Your task to perform on an android device: toggle data saver in the chrome app Image 0: 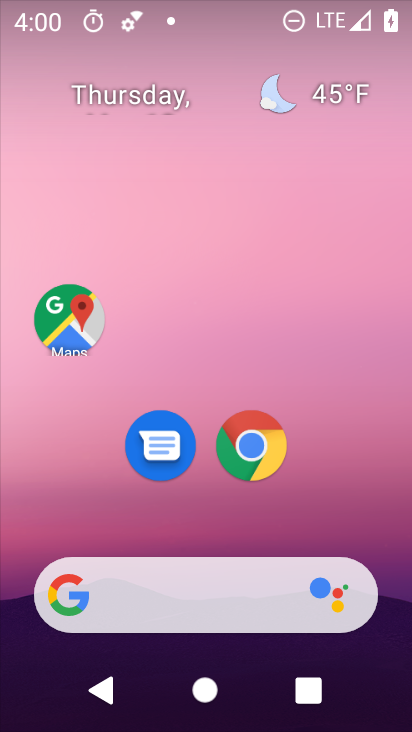
Step 0: click (254, 444)
Your task to perform on an android device: toggle data saver in the chrome app Image 1: 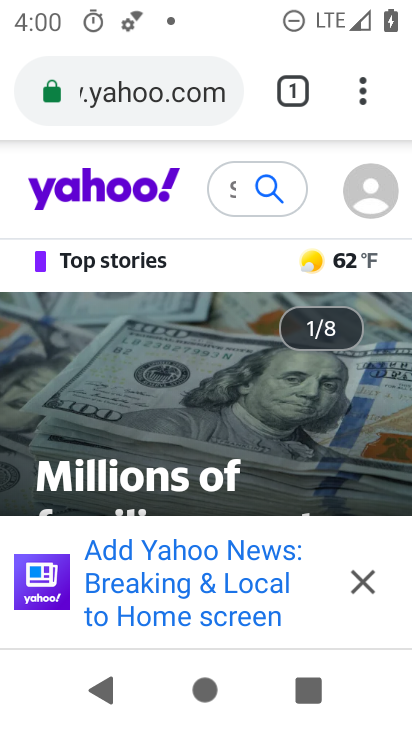
Step 1: click (361, 90)
Your task to perform on an android device: toggle data saver in the chrome app Image 2: 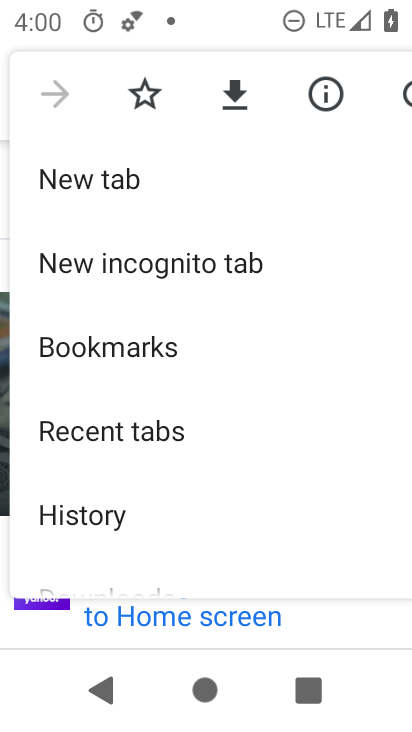
Step 2: drag from (215, 489) to (238, 346)
Your task to perform on an android device: toggle data saver in the chrome app Image 3: 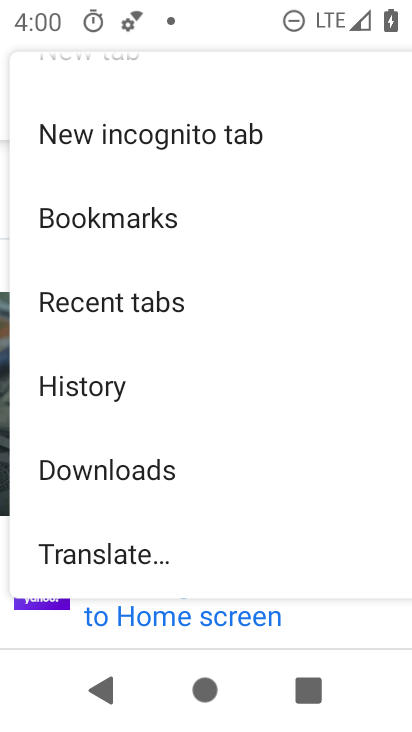
Step 3: drag from (192, 496) to (206, 373)
Your task to perform on an android device: toggle data saver in the chrome app Image 4: 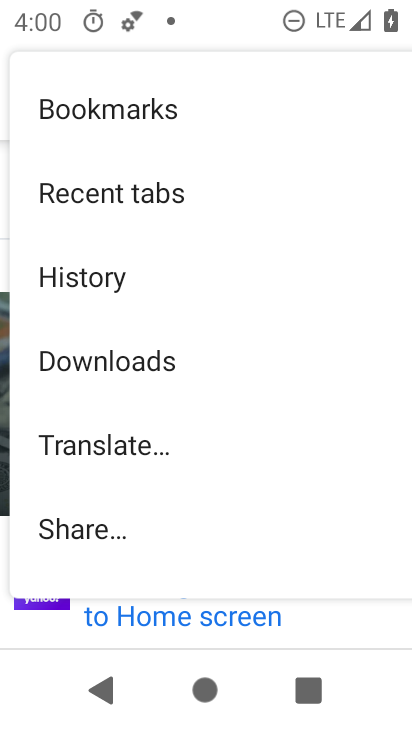
Step 4: drag from (218, 541) to (279, 328)
Your task to perform on an android device: toggle data saver in the chrome app Image 5: 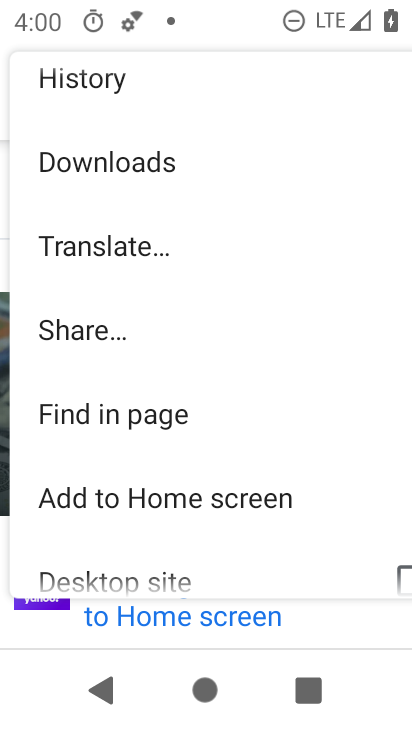
Step 5: drag from (232, 475) to (261, 323)
Your task to perform on an android device: toggle data saver in the chrome app Image 6: 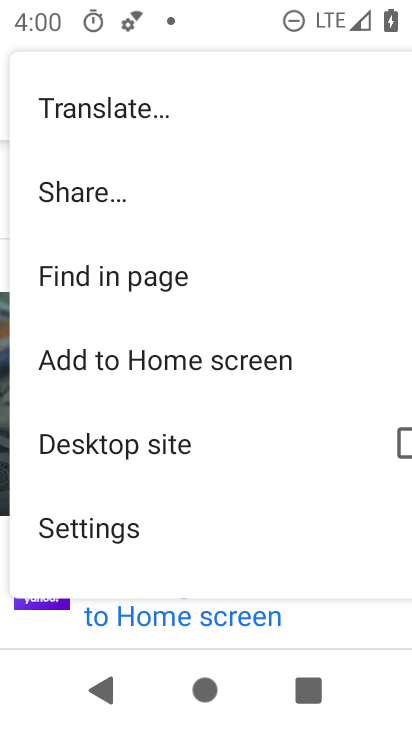
Step 6: click (116, 534)
Your task to perform on an android device: toggle data saver in the chrome app Image 7: 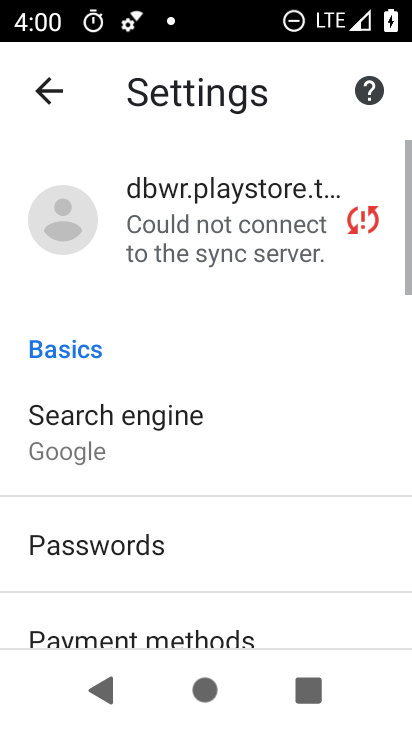
Step 7: drag from (187, 473) to (260, 267)
Your task to perform on an android device: toggle data saver in the chrome app Image 8: 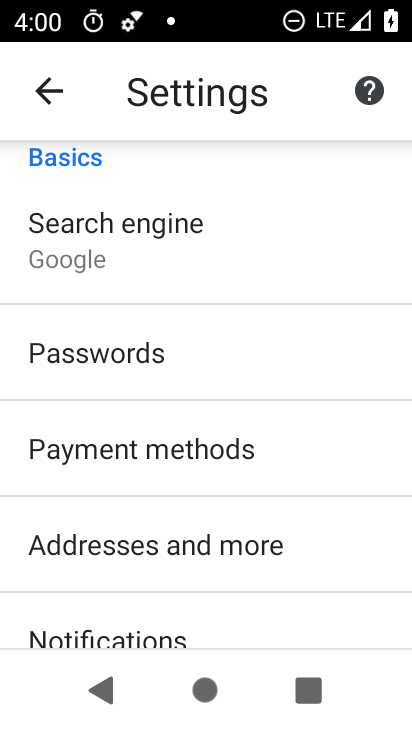
Step 8: drag from (140, 558) to (206, 415)
Your task to perform on an android device: toggle data saver in the chrome app Image 9: 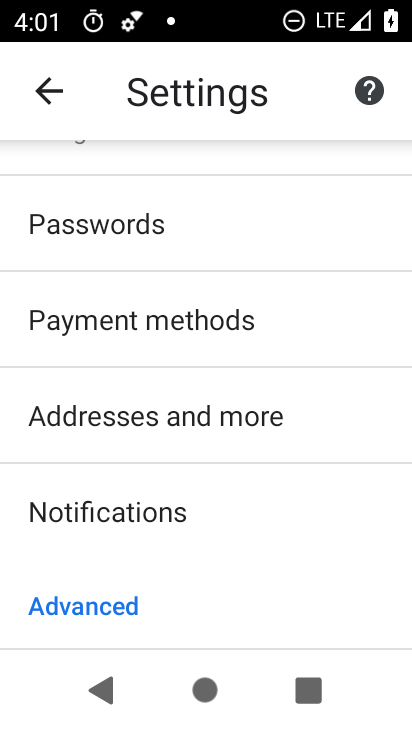
Step 9: drag from (108, 570) to (188, 432)
Your task to perform on an android device: toggle data saver in the chrome app Image 10: 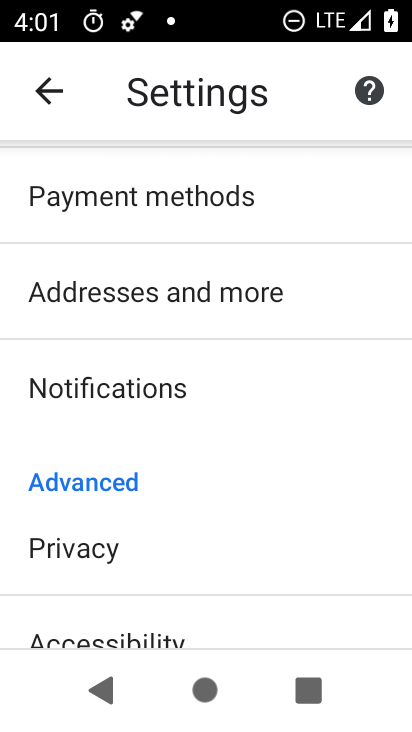
Step 10: drag from (172, 526) to (258, 341)
Your task to perform on an android device: toggle data saver in the chrome app Image 11: 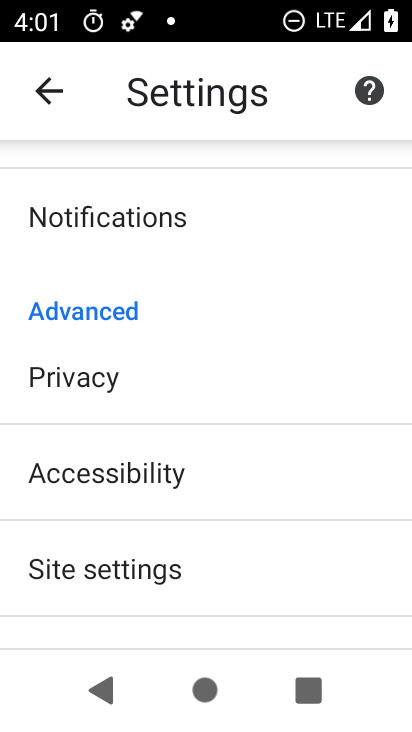
Step 11: drag from (191, 515) to (243, 413)
Your task to perform on an android device: toggle data saver in the chrome app Image 12: 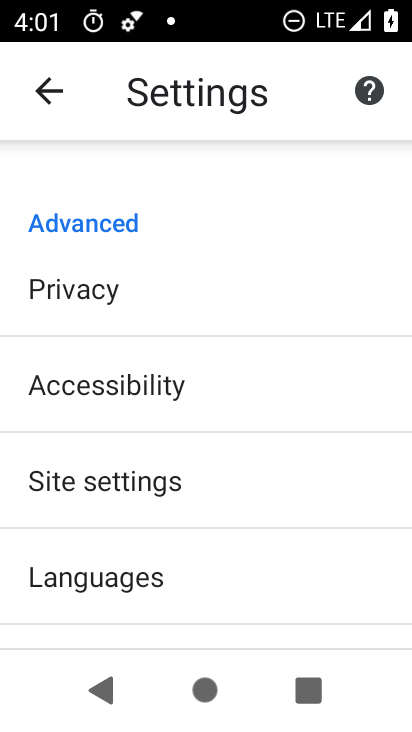
Step 12: drag from (187, 533) to (246, 396)
Your task to perform on an android device: toggle data saver in the chrome app Image 13: 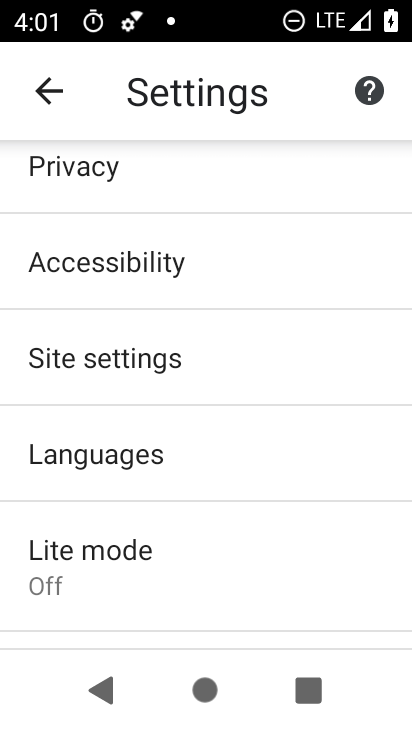
Step 13: click (118, 543)
Your task to perform on an android device: toggle data saver in the chrome app Image 14: 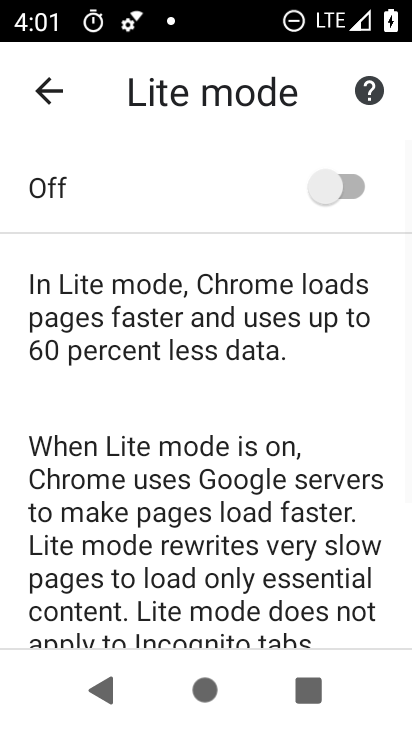
Step 14: click (331, 179)
Your task to perform on an android device: toggle data saver in the chrome app Image 15: 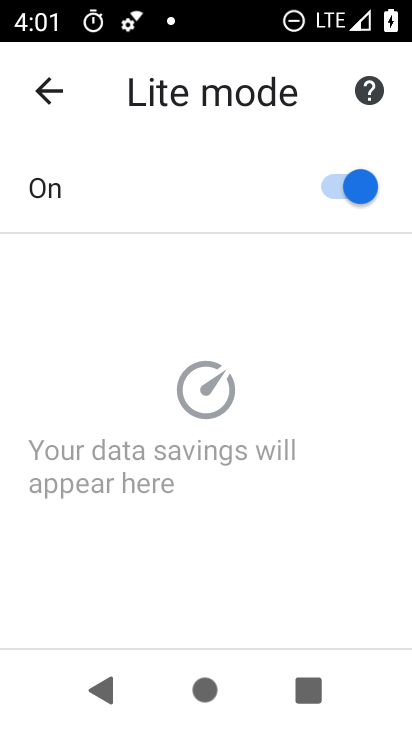
Step 15: task complete